Your task to perform on an android device: turn on the 12-hour format for clock Image 0: 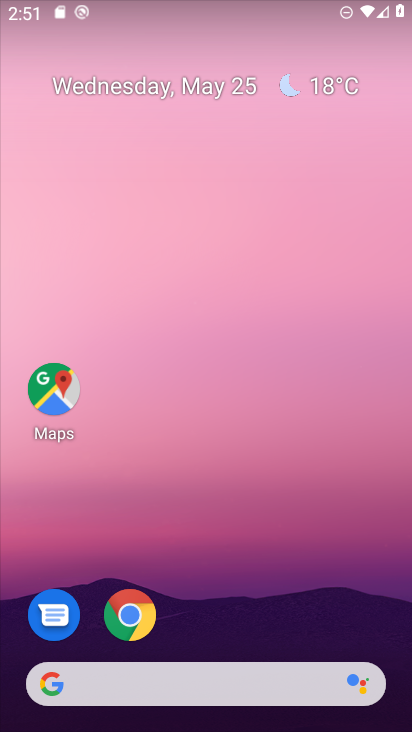
Step 0: drag from (283, 599) to (298, 73)
Your task to perform on an android device: turn on the 12-hour format for clock Image 1: 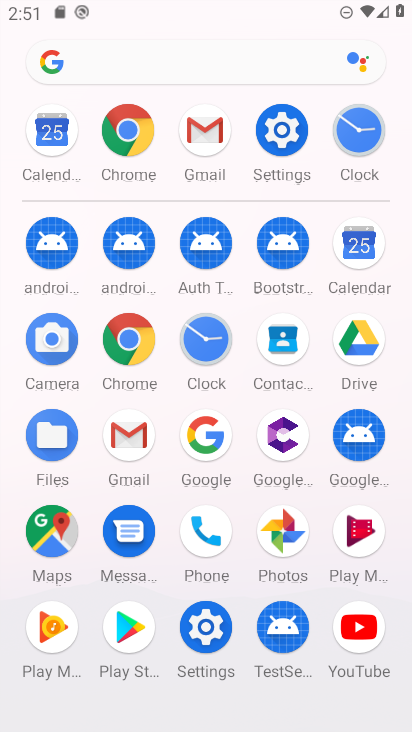
Step 1: click (359, 134)
Your task to perform on an android device: turn on the 12-hour format for clock Image 2: 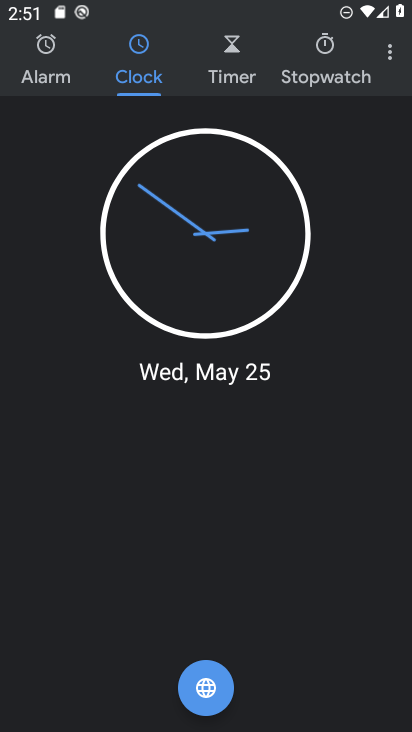
Step 2: click (386, 53)
Your task to perform on an android device: turn on the 12-hour format for clock Image 3: 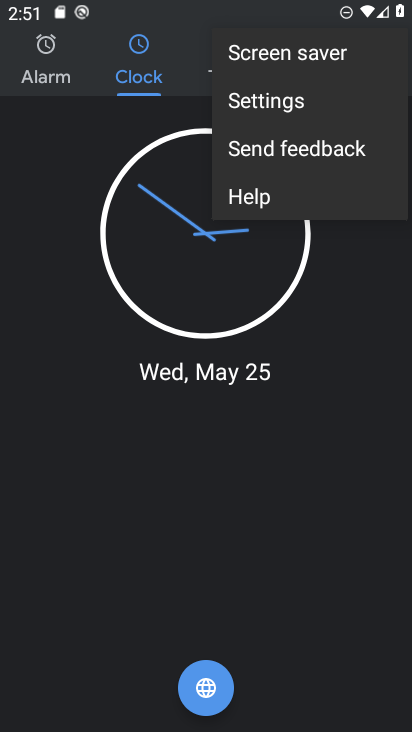
Step 3: click (304, 100)
Your task to perform on an android device: turn on the 12-hour format for clock Image 4: 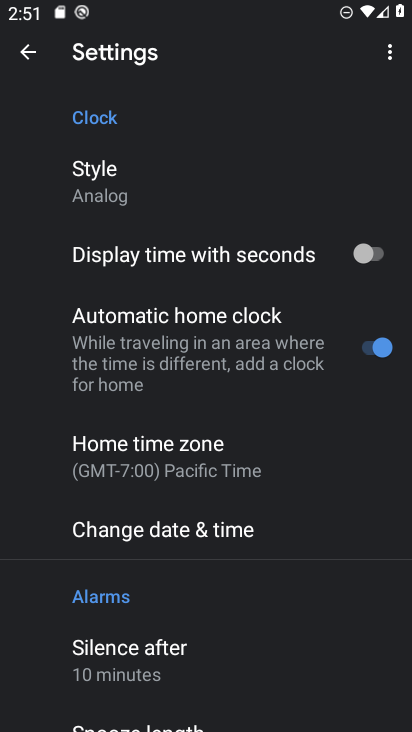
Step 4: click (287, 530)
Your task to perform on an android device: turn on the 12-hour format for clock Image 5: 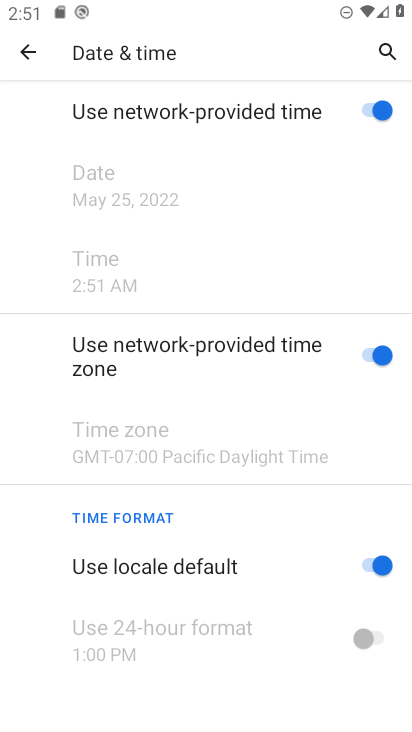
Step 5: task complete